Your task to perform on an android device: turn off translation in the chrome app Image 0: 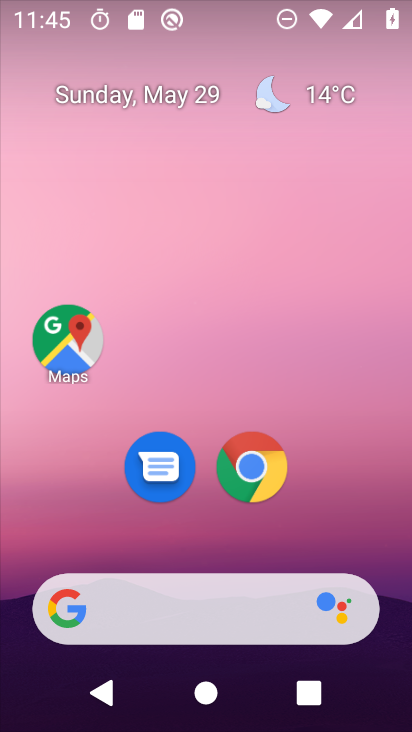
Step 0: click (241, 464)
Your task to perform on an android device: turn off translation in the chrome app Image 1: 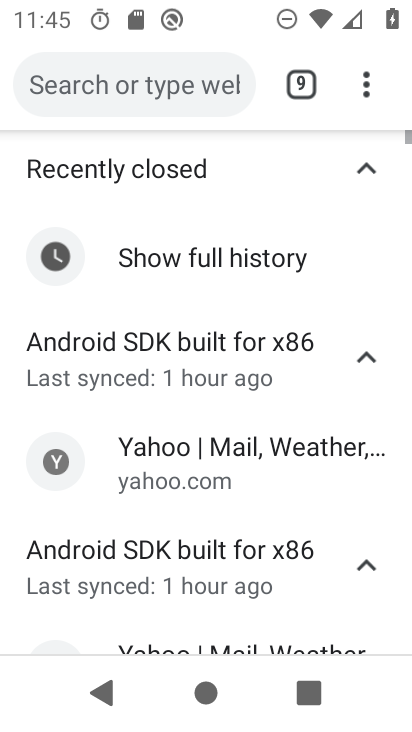
Step 1: click (365, 99)
Your task to perform on an android device: turn off translation in the chrome app Image 2: 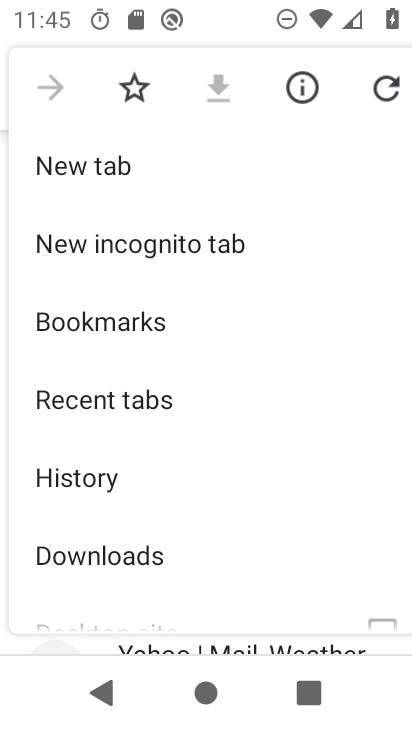
Step 2: drag from (115, 586) to (137, 334)
Your task to perform on an android device: turn off translation in the chrome app Image 3: 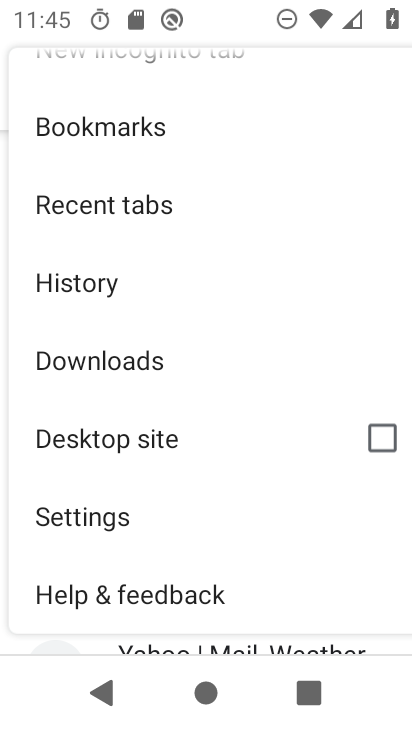
Step 3: click (101, 522)
Your task to perform on an android device: turn off translation in the chrome app Image 4: 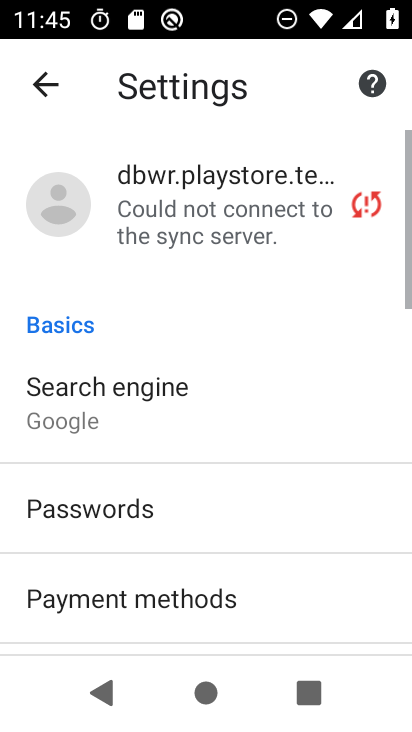
Step 4: drag from (194, 578) to (224, 269)
Your task to perform on an android device: turn off translation in the chrome app Image 5: 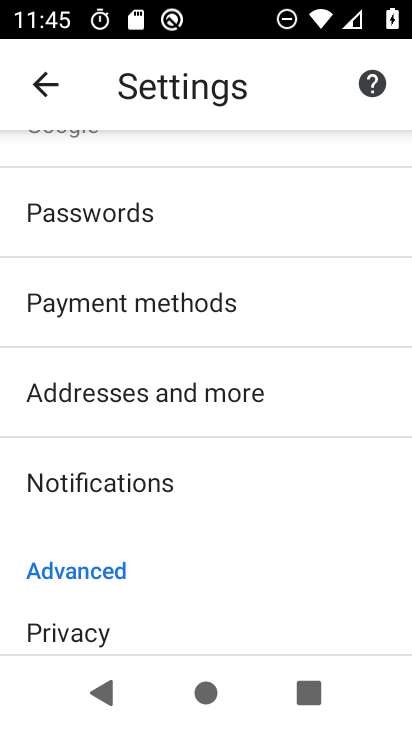
Step 5: drag from (166, 572) to (206, 278)
Your task to perform on an android device: turn off translation in the chrome app Image 6: 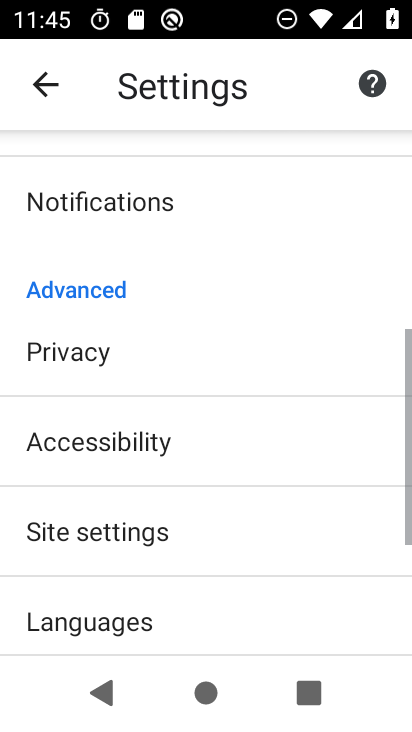
Step 6: drag from (161, 565) to (202, 320)
Your task to perform on an android device: turn off translation in the chrome app Image 7: 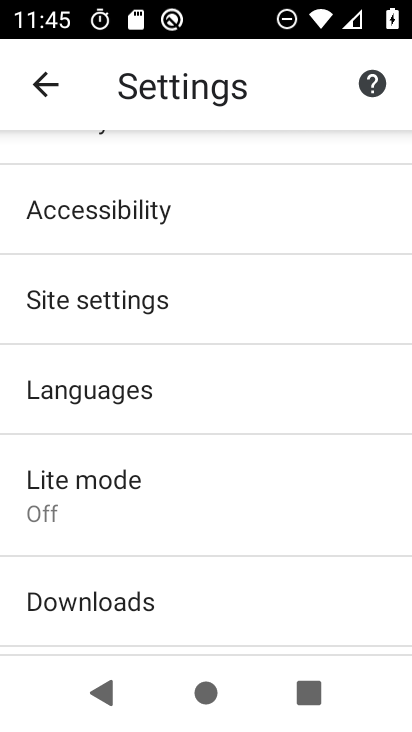
Step 7: click (176, 391)
Your task to perform on an android device: turn off translation in the chrome app Image 8: 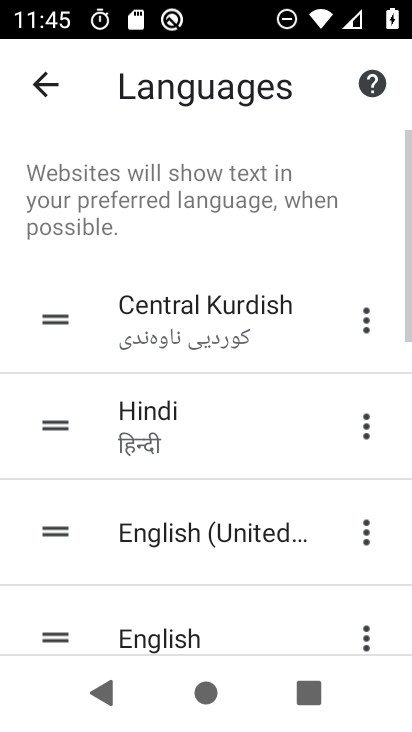
Step 8: drag from (208, 566) to (242, 221)
Your task to perform on an android device: turn off translation in the chrome app Image 9: 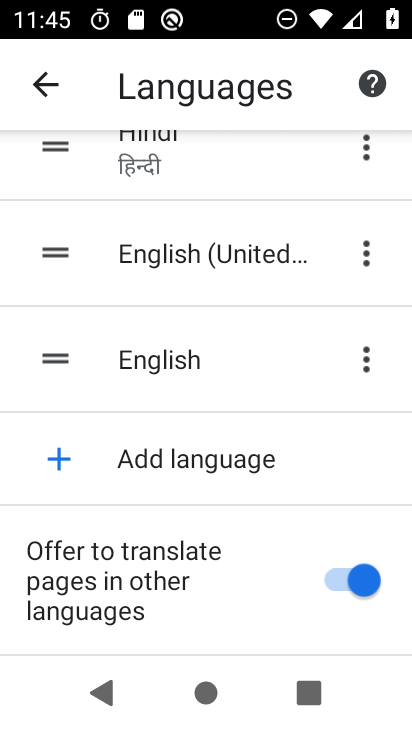
Step 9: click (343, 575)
Your task to perform on an android device: turn off translation in the chrome app Image 10: 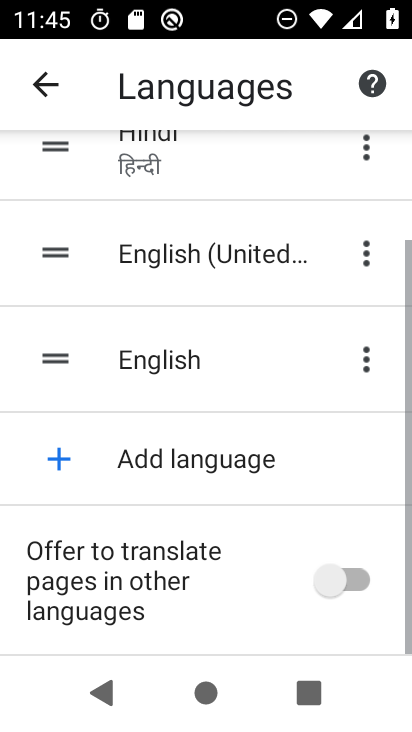
Step 10: task complete